Your task to perform on an android device: Open the stopwatch Image 0: 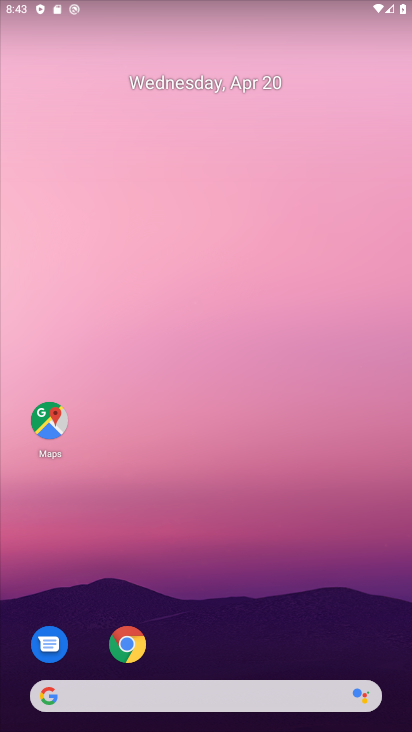
Step 0: drag from (319, 515) to (246, 33)
Your task to perform on an android device: Open the stopwatch Image 1: 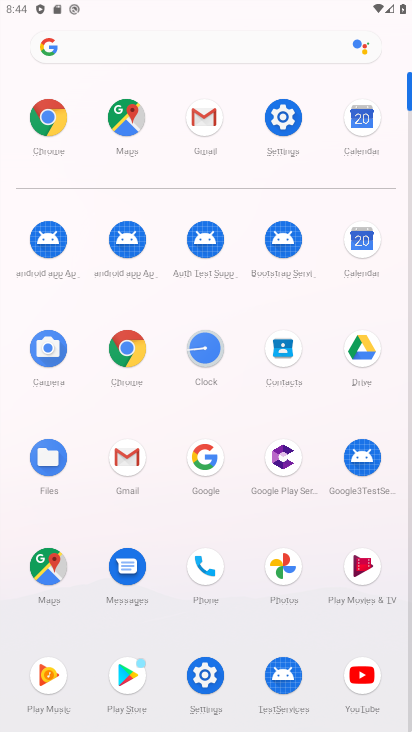
Step 1: click (201, 343)
Your task to perform on an android device: Open the stopwatch Image 2: 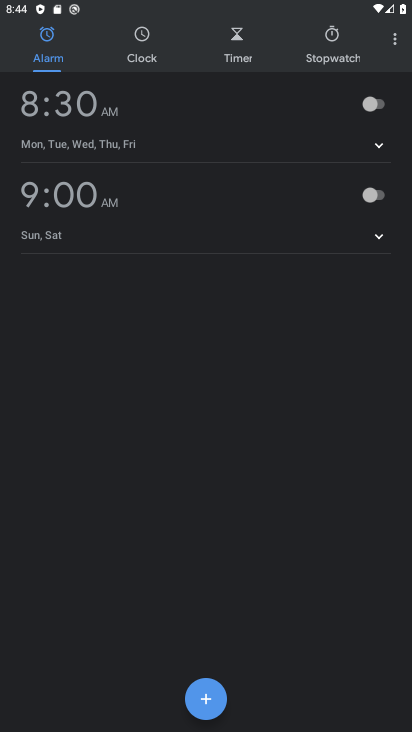
Step 2: click (333, 41)
Your task to perform on an android device: Open the stopwatch Image 3: 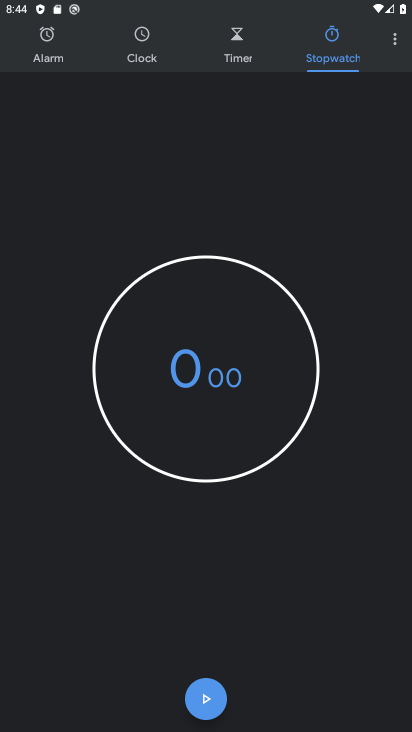
Step 3: task complete